Your task to perform on an android device: turn on the 12-hour format for clock Image 0: 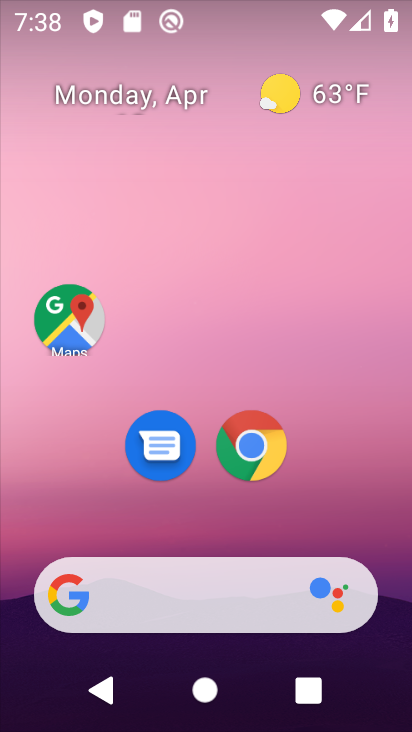
Step 0: drag from (389, 432) to (393, 120)
Your task to perform on an android device: turn on the 12-hour format for clock Image 1: 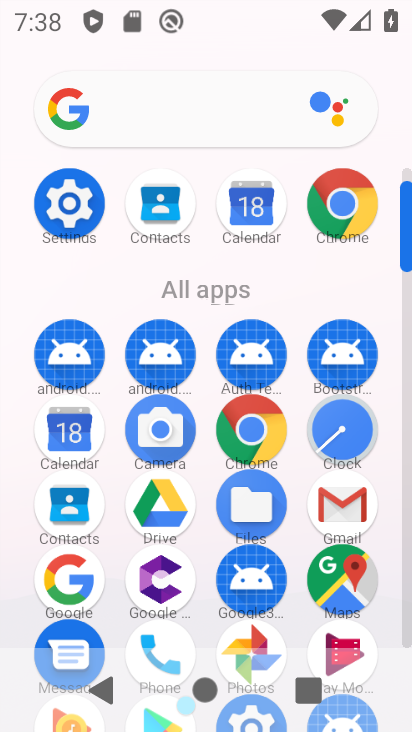
Step 1: click (339, 424)
Your task to perform on an android device: turn on the 12-hour format for clock Image 2: 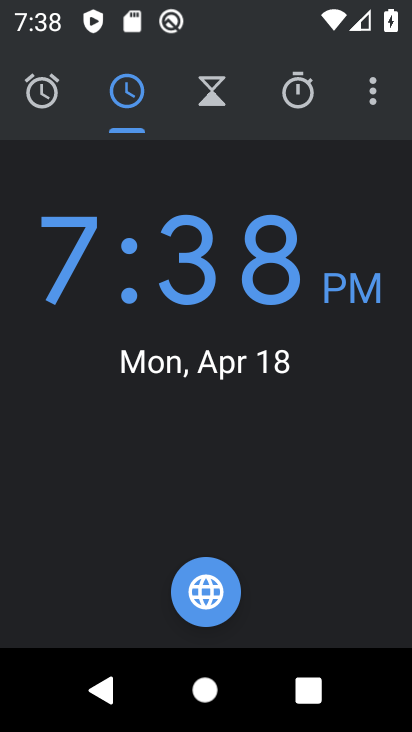
Step 2: click (373, 97)
Your task to perform on an android device: turn on the 12-hour format for clock Image 3: 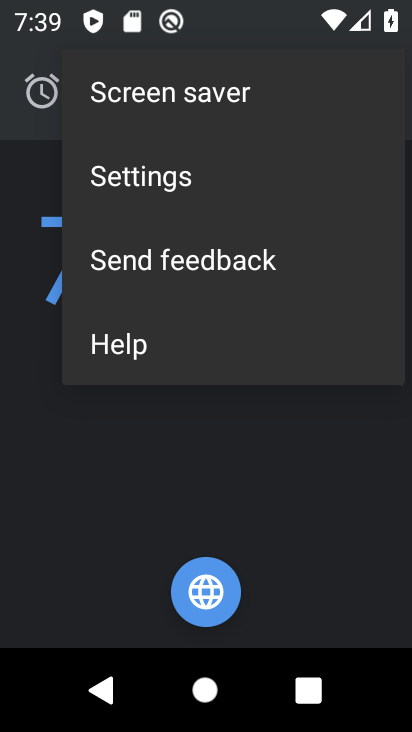
Step 3: click (146, 174)
Your task to perform on an android device: turn on the 12-hour format for clock Image 4: 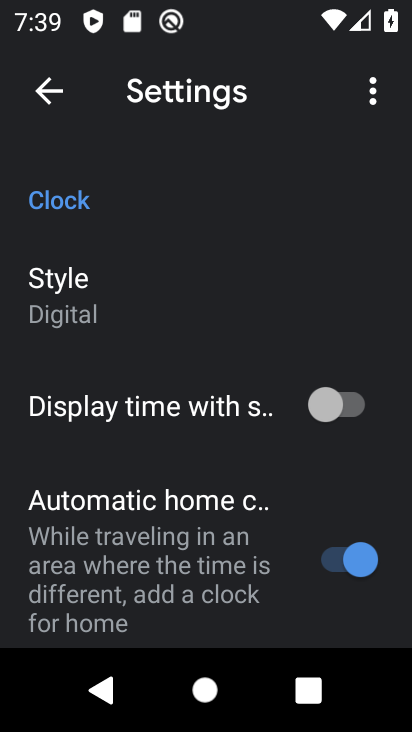
Step 4: click (66, 289)
Your task to perform on an android device: turn on the 12-hour format for clock Image 5: 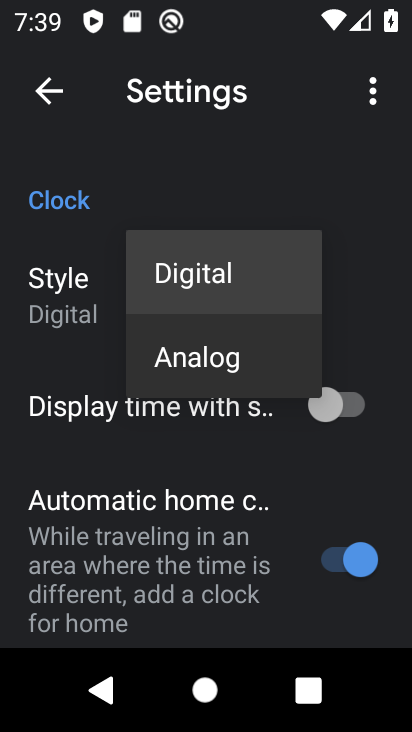
Step 5: click (23, 328)
Your task to perform on an android device: turn on the 12-hour format for clock Image 6: 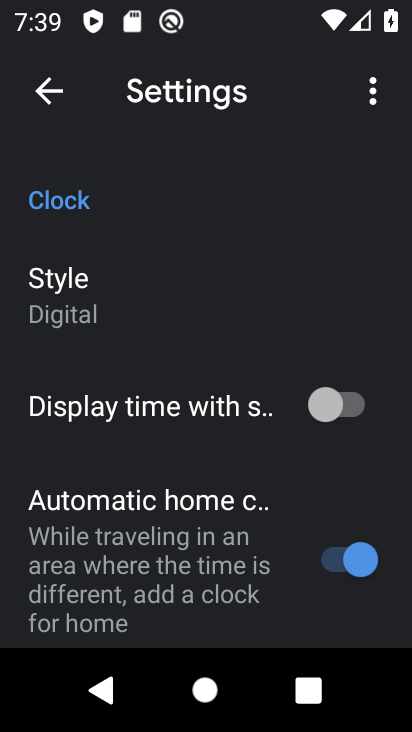
Step 6: drag from (194, 557) to (207, 208)
Your task to perform on an android device: turn on the 12-hour format for clock Image 7: 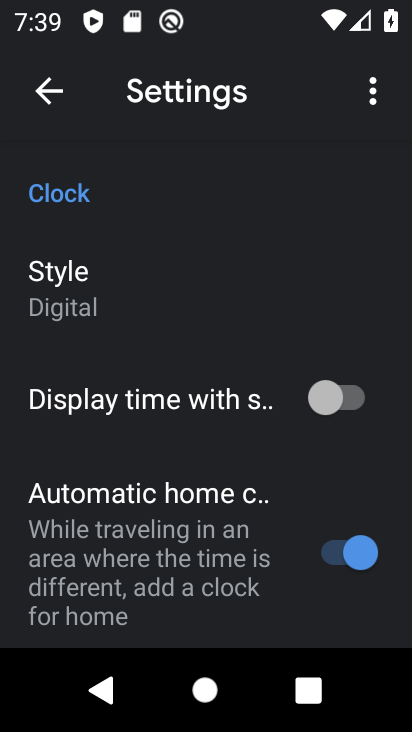
Step 7: drag from (201, 603) to (303, 118)
Your task to perform on an android device: turn on the 12-hour format for clock Image 8: 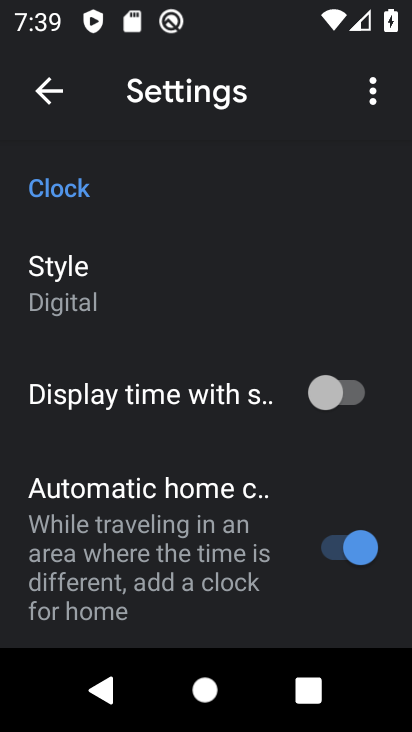
Step 8: drag from (247, 439) to (248, 113)
Your task to perform on an android device: turn on the 12-hour format for clock Image 9: 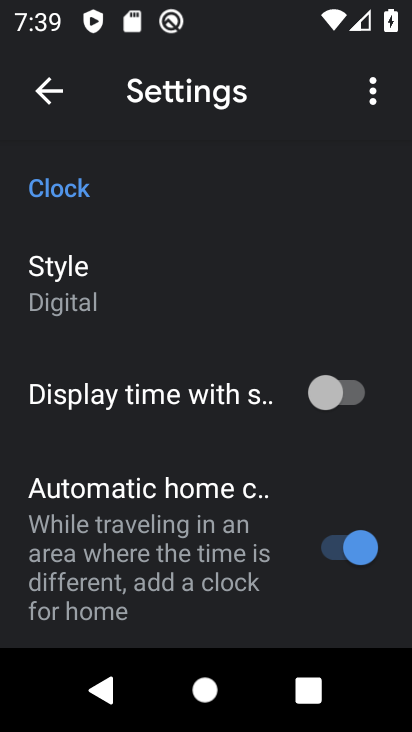
Step 9: drag from (228, 551) to (259, 178)
Your task to perform on an android device: turn on the 12-hour format for clock Image 10: 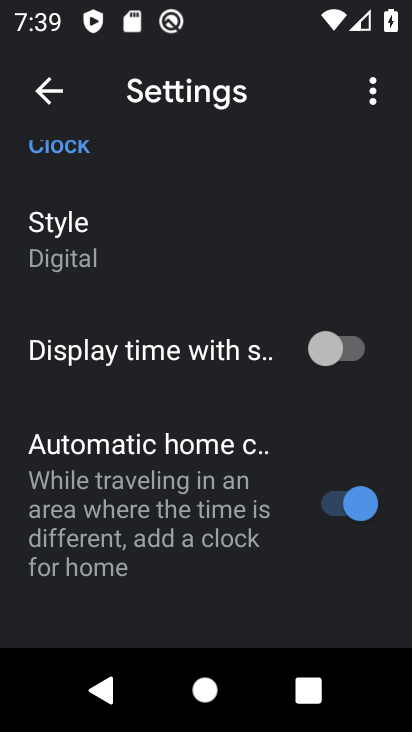
Step 10: drag from (230, 436) to (248, 155)
Your task to perform on an android device: turn on the 12-hour format for clock Image 11: 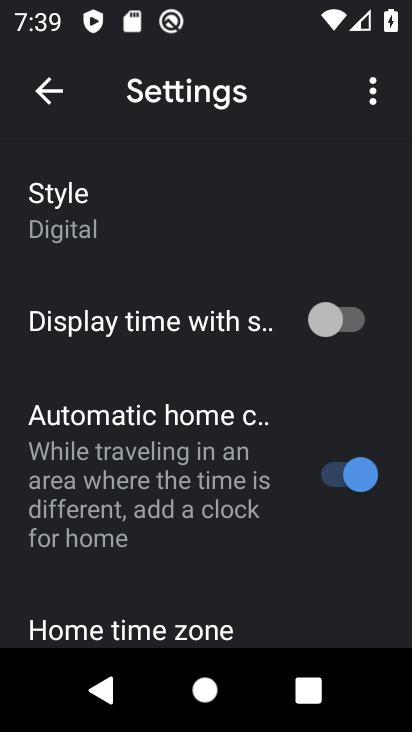
Step 11: drag from (217, 294) to (207, 241)
Your task to perform on an android device: turn on the 12-hour format for clock Image 12: 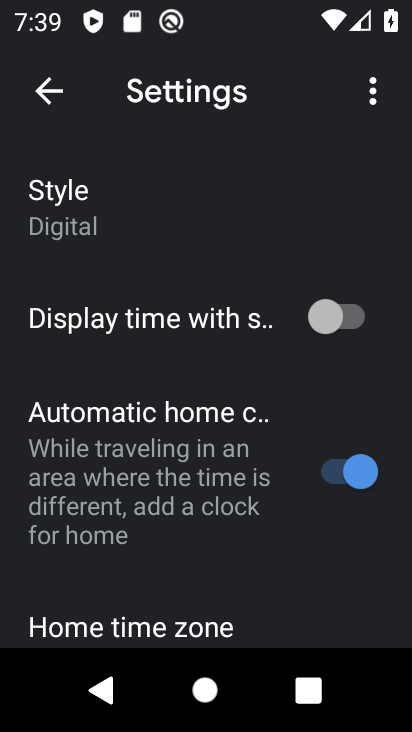
Step 12: drag from (197, 556) to (214, 174)
Your task to perform on an android device: turn on the 12-hour format for clock Image 13: 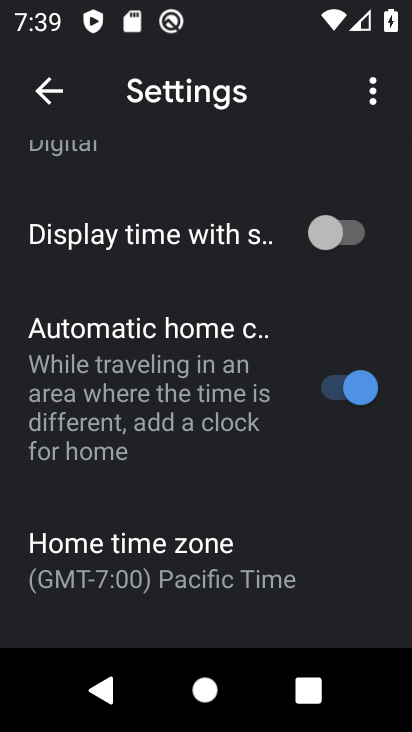
Step 13: drag from (221, 339) to (223, 163)
Your task to perform on an android device: turn on the 12-hour format for clock Image 14: 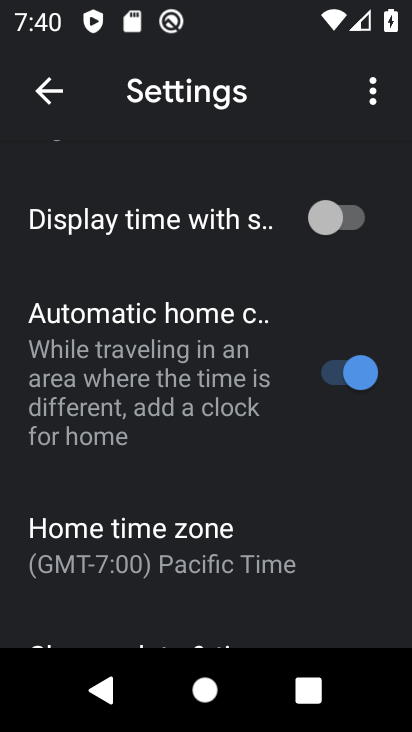
Step 14: drag from (194, 569) to (197, 140)
Your task to perform on an android device: turn on the 12-hour format for clock Image 15: 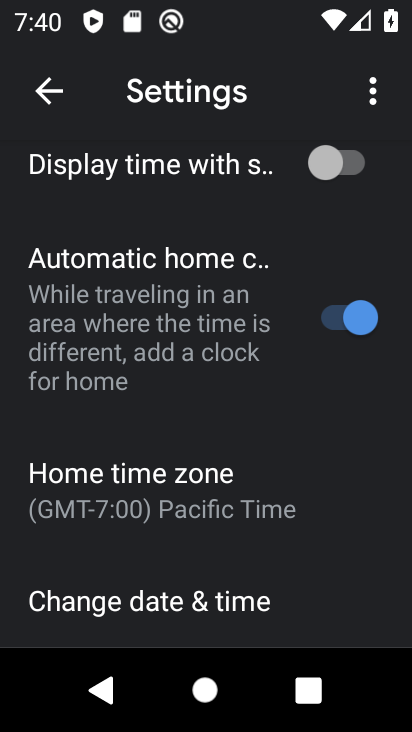
Step 15: drag from (179, 613) to (173, 322)
Your task to perform on an android device: turn on the 12-hour format for clock Image 16: 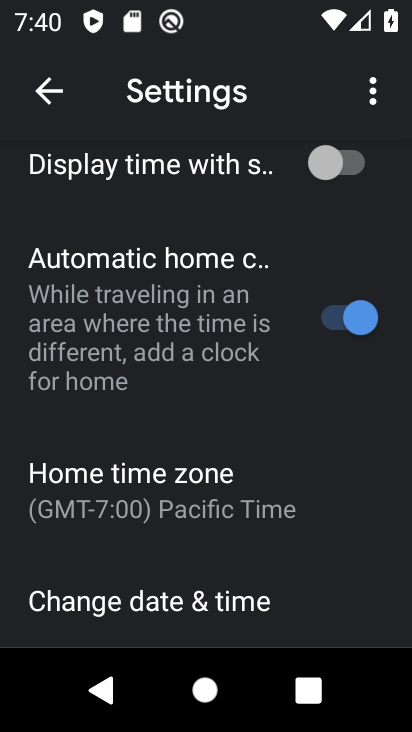
Step 16: drag from (165, 582) to (149, 260)
Your task to perform on an android device: turn on the 12-hour format for clock Image 17: 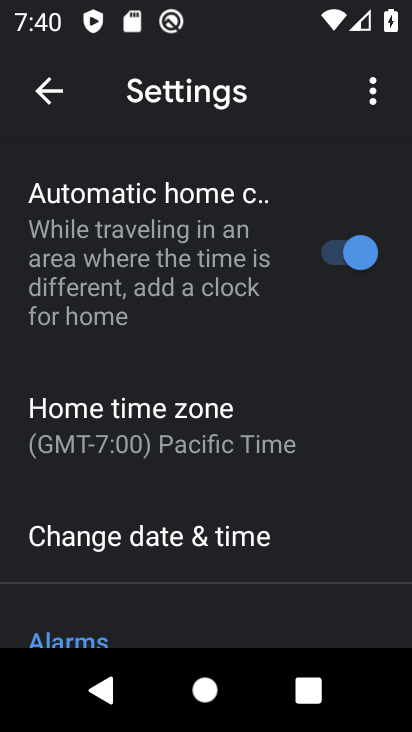
Step 17: drag from (171, 576) to (193, 175)
Your task to perform on an android device: turn on the 12-hour format for clock Image 18: 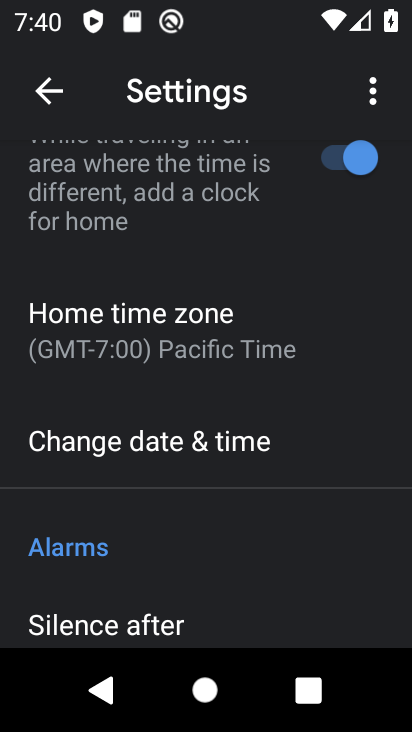
Step 18: click (142, 440)
Your task to perform on an android device: turn on the 12-hour format for clock Image 19: 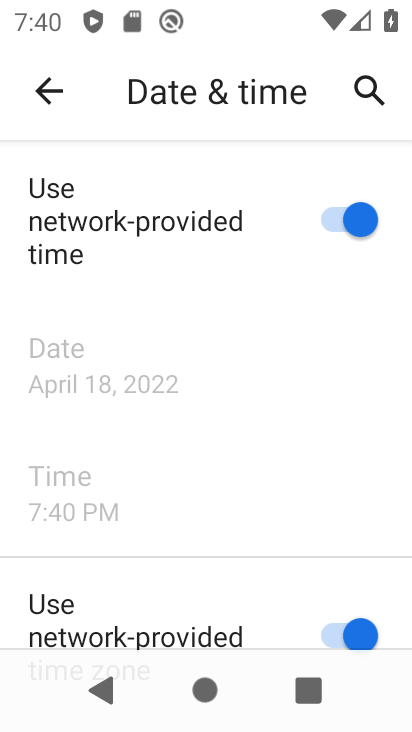
Step 19: task complete